Your task to perform on an android device: Open network settings Image 0: 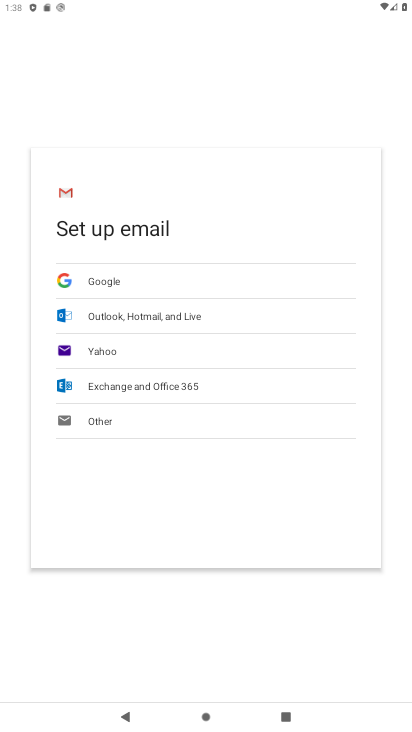
Step 0: press home button
Your task to perform on an android device: Open network settings Image 1: 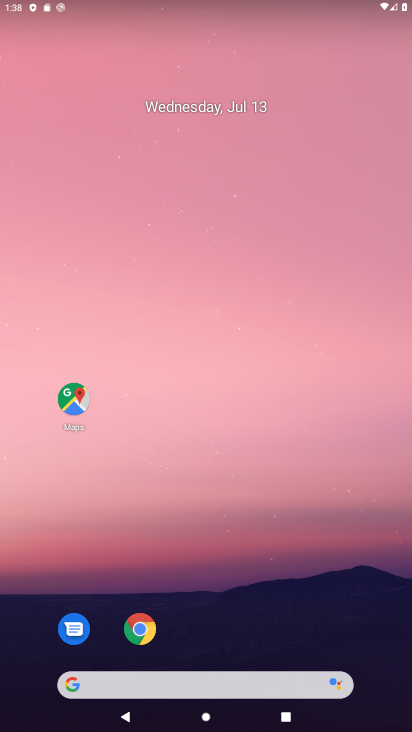
Step 1: drag from (310, 532) to (378, 84)
Your task to perform on an android device: Open network settings Image 2: 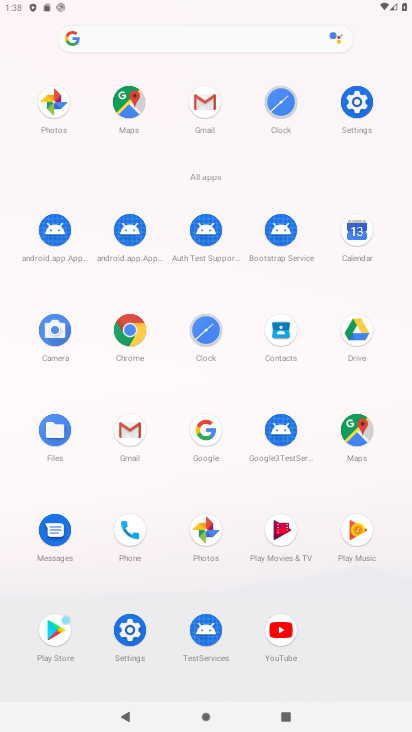
Step 2: click (362, 90)
Your task to perform on an android device: Open network settings Image 3: 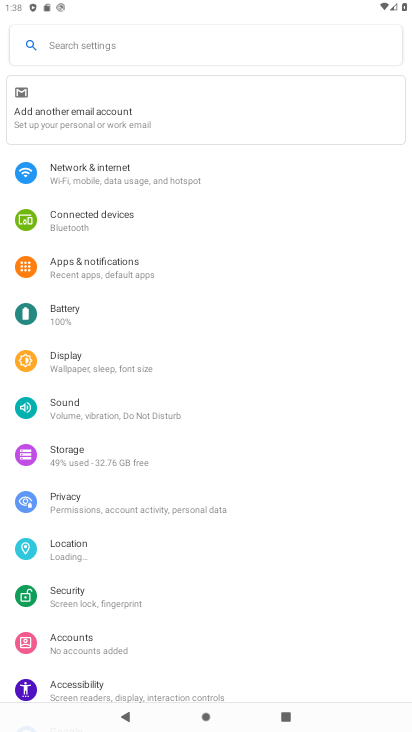
Step 3: click (96, 169)
Your task to perform on an android device: Open network settings Image 4: 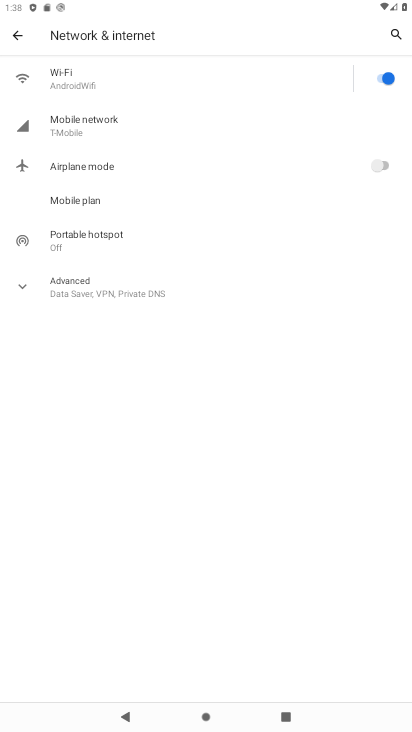
Step 4: task complete